Your task to perform on an android device: What is the news today? Image 0: 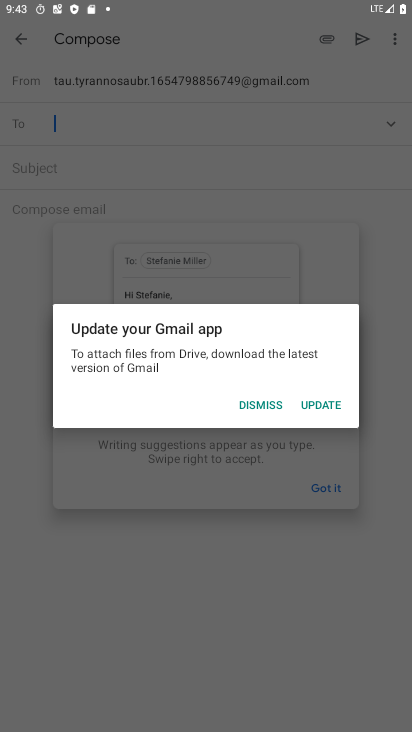
Step 0: press home button
Your task to perform on an android device: What is the news today? Image 1: 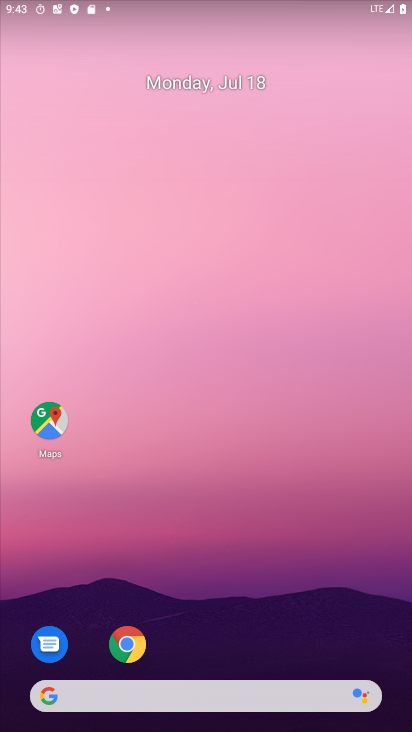
Step 1: click (226, 699)
Your task to perform on an android device: What is the news today? Image 2: 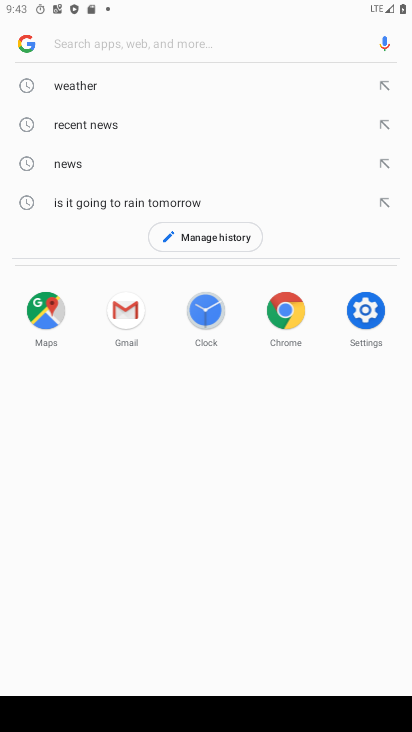
Step 2: click (82, 123)
Your task to perform on an android device: What is the news today? Image 3: 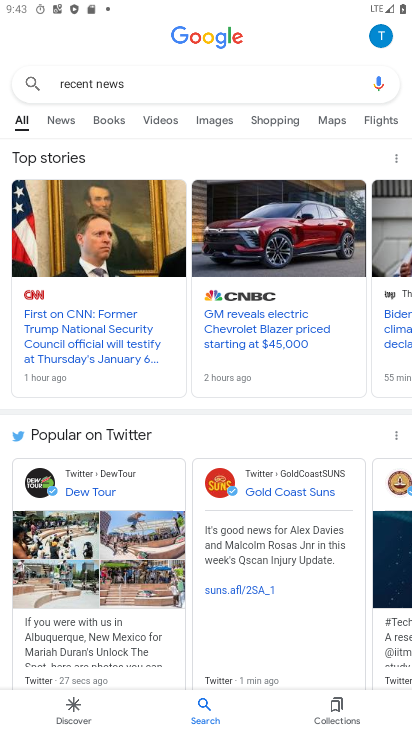
Step 3: task complete